Your task to perform on an android device: Go to internet settings Image 0: 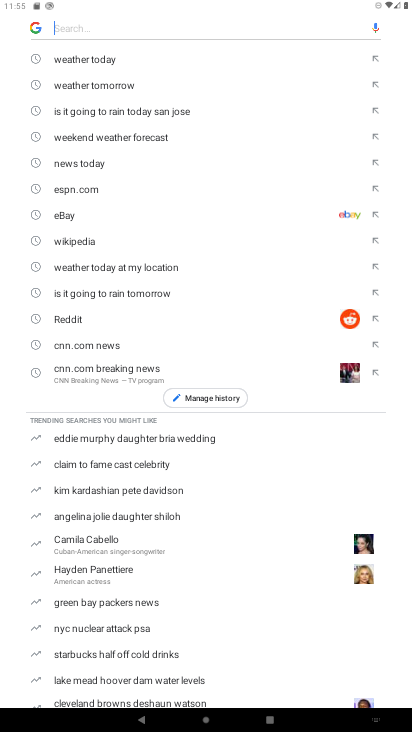
Step 0: press home button
Your task to perform on an android device: Go to internet settings Image 1: 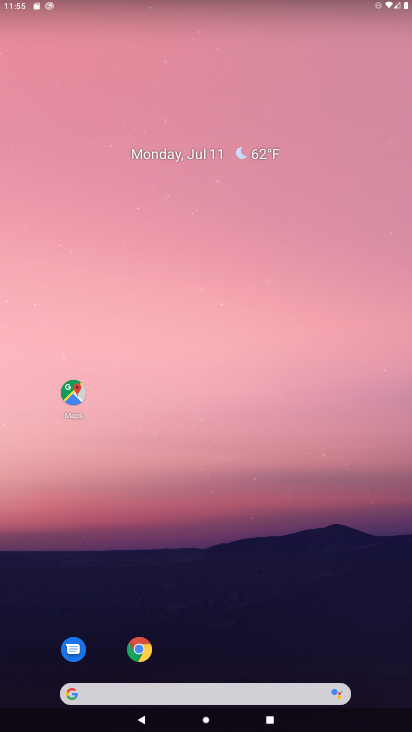
Step 1: drag from (284, 600) to (265, 176)
Your task to perform on an android device: Go to internet settings Image 2: 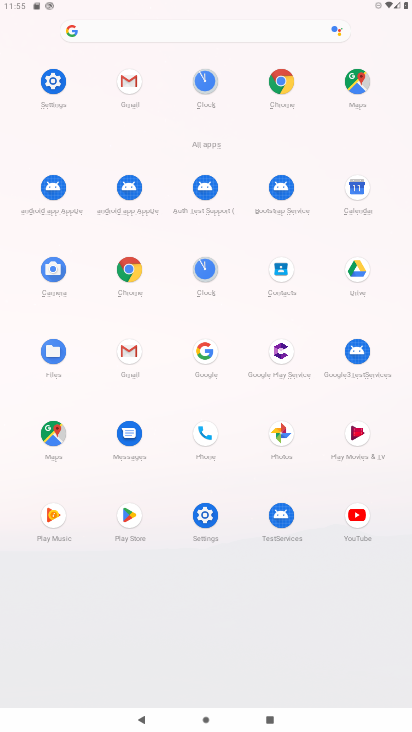
Step 2: click (52, 78)
Your task to perform on an android device: Go to internet settings Image 3: 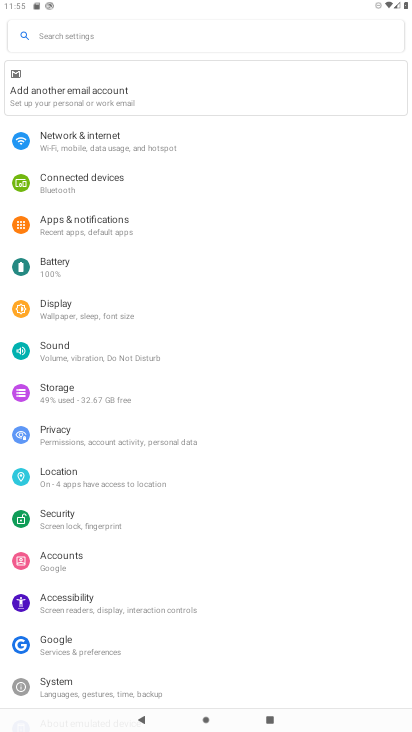
Step 3: click (97, 138)
Your task to perform on an android device: Go to internet settings Image 4: 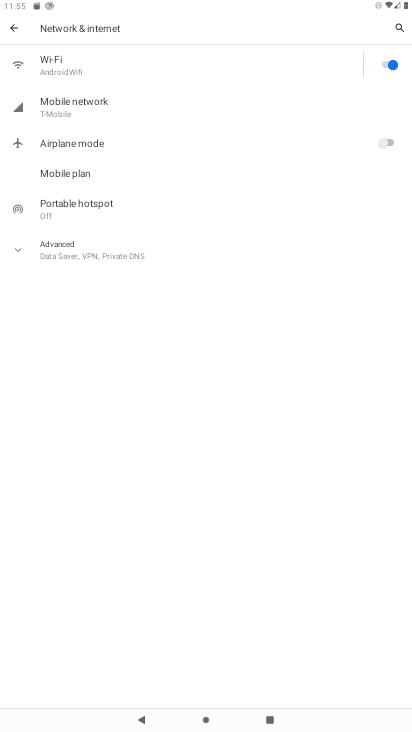
Step 4: click (99, 102)
Your task to perform on an android device: Go to internet settings Image 5: 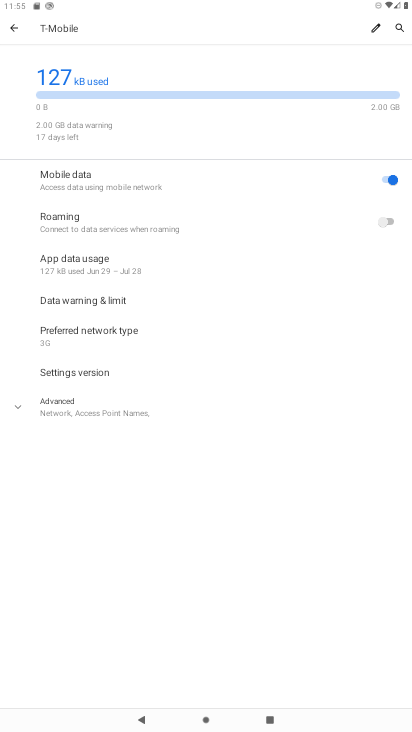
Step 5: task complete